Your task to perform on an android device: open device folders in google photos Image 0: 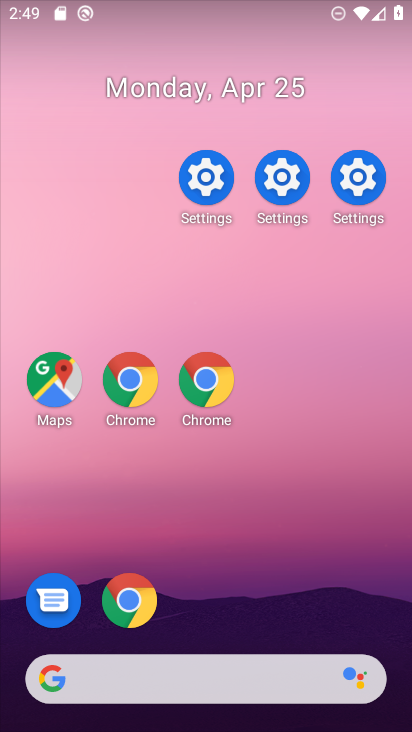
Step 0: drag from (227, 662) to (83, 7)
Your task to perform on an android device: open device folders in google photos Image 1: 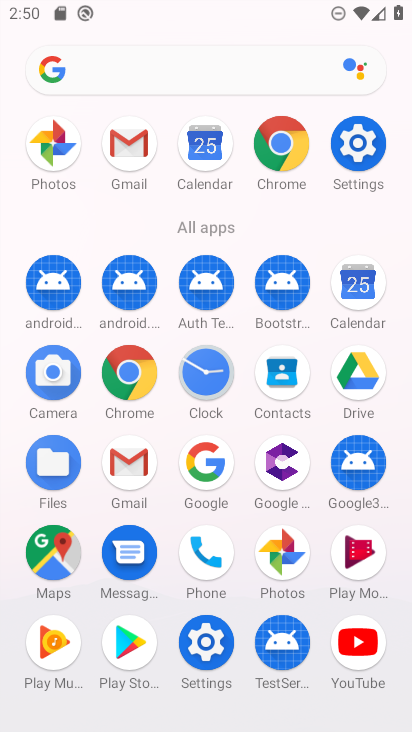
Step 1: click (286, 552)
Your task to perform on an android device: open device folders in google photos Image 2: 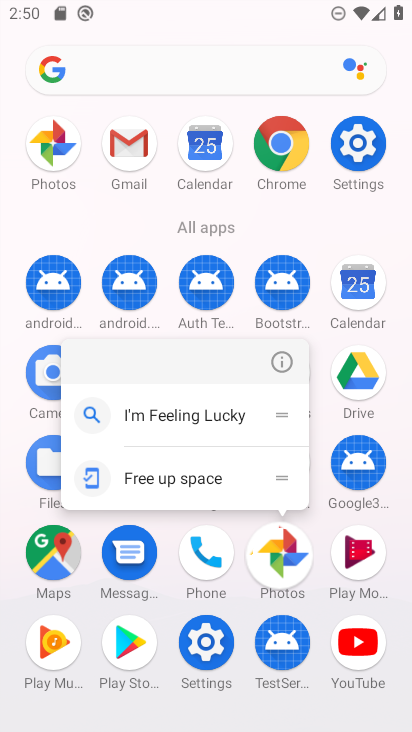
Step 2: click (283, 555)
Your task to perform on an android device: open device folders in google photos Image 3: 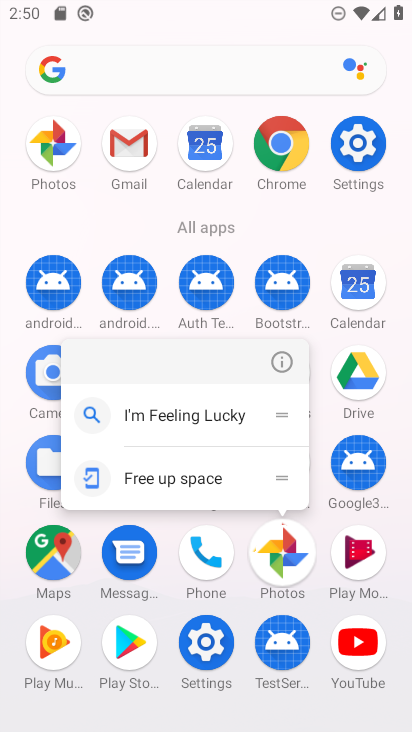
Step 3: click (284, 557)
Your task to perform on an android device: open device folders in google photos Image 4: 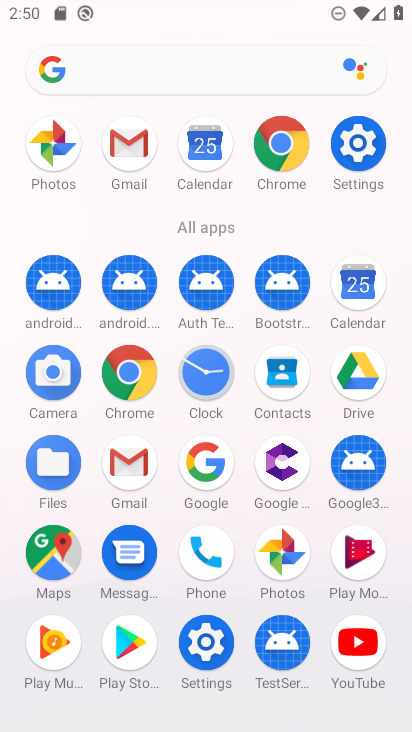
Step 4: click (275, 530)
Your task to perform on an android device: open device folders in google photos Image 5: 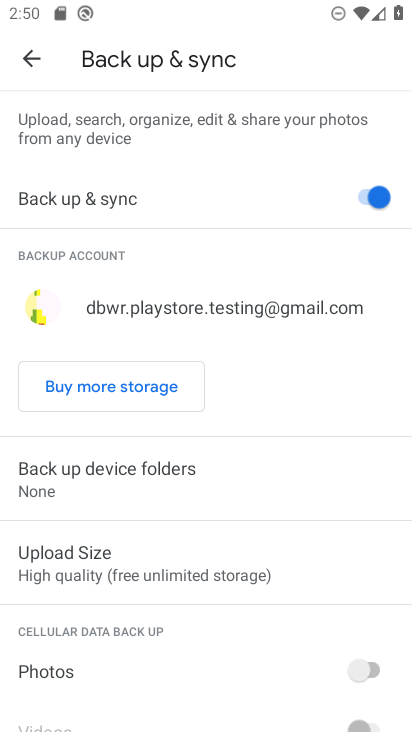
Step 5: click (31, 52)
Your task to perform on an android device: open device folders in google photos Image 6: 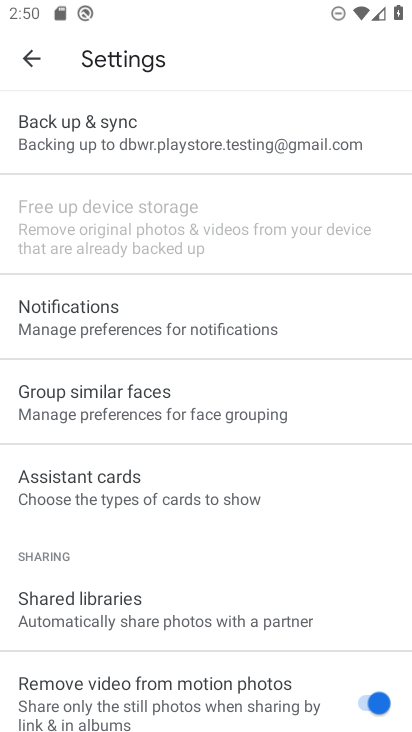
Step 6: click (13, 42)
Your task to perform on an android device: open device folders in google photos Image 7: 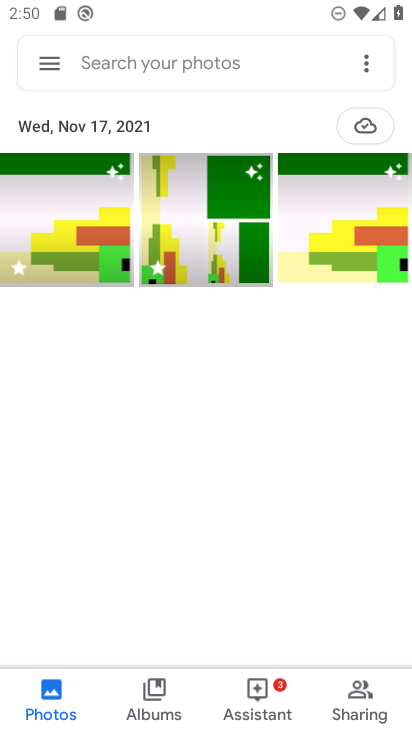
Step 7: click (46, 60)
Your task to perform on an android device: open device folders in google photos Image 8: 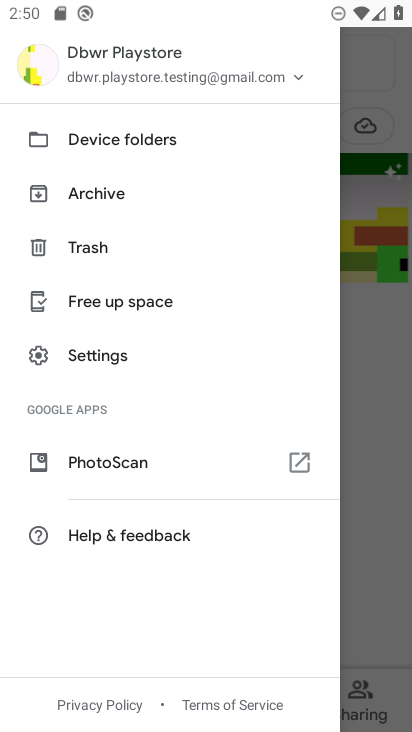
Step 8: click (102, 142)
Your task to perform on an android device: open device folders in google photos Image 9: 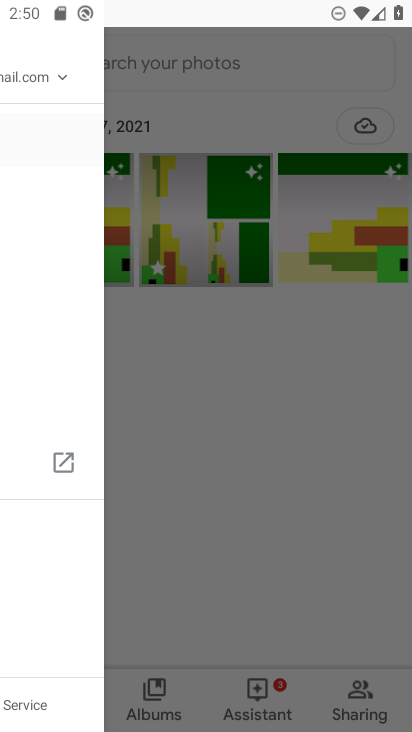
Step 9: click (103, 141)
Your task to perform on an android device: open device folders in google photos Image 10: 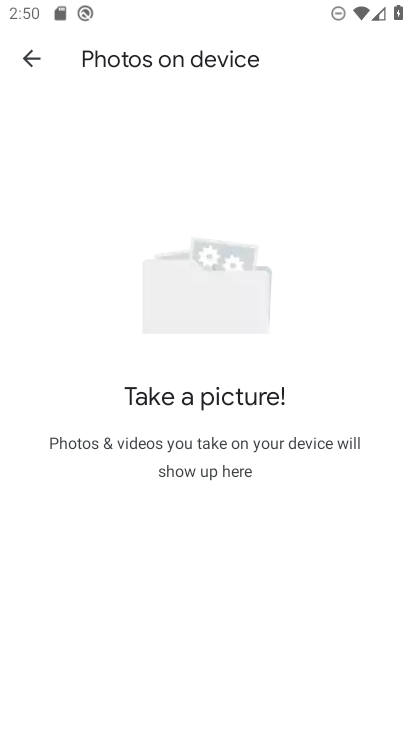
Step 10: click (103, 141)
Your task to perform on an android device: open device folders in google photos Image 11: 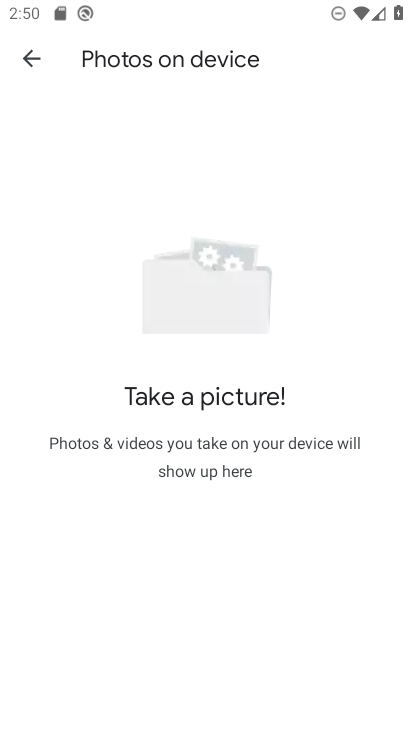
Step 11: task complete